Your task to perform on an android device: Search for "dell xps" on amazon.com, select the first entry, add it to the cart, then select checkout. Image 0: 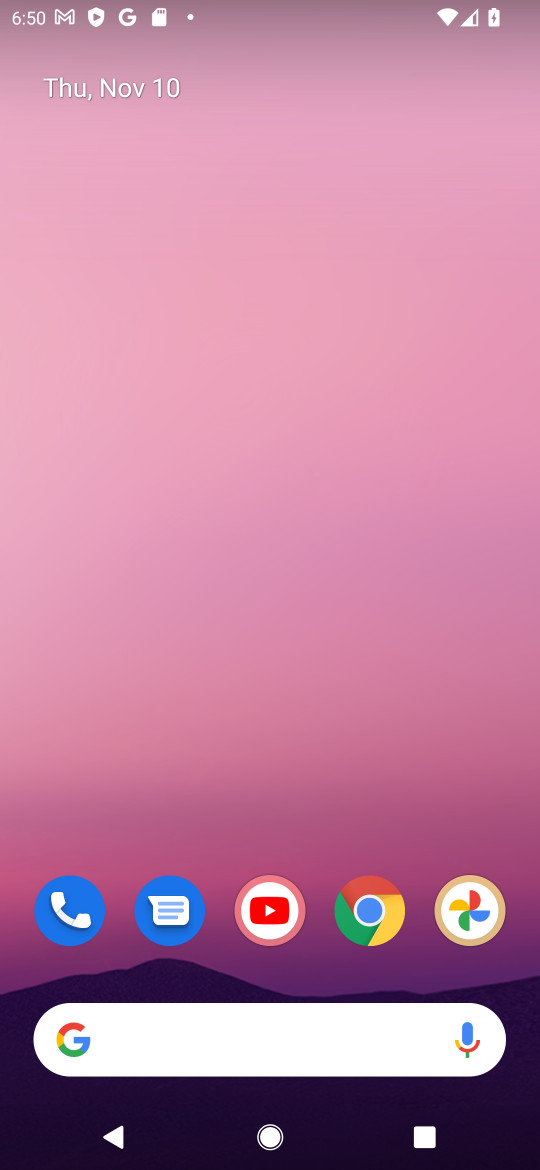
Step 0: click (377, 915)
Your task to perform on an android device: Search for "dell xps" on amazon.com, select the first entry, add it to the cart, then select checkout. Image 1: 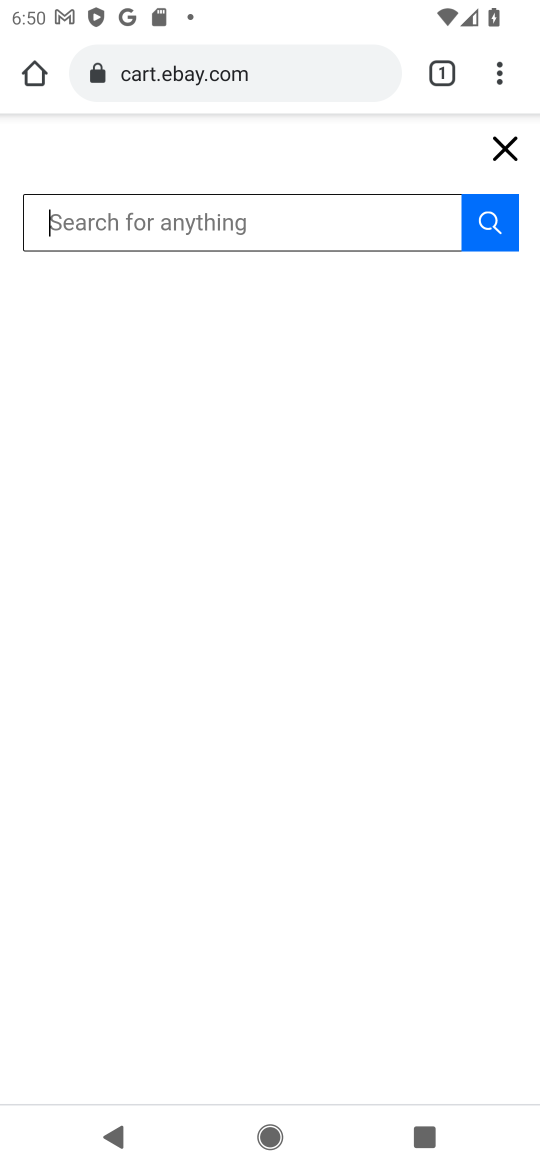
Step 1: click (236, 68)
Your task to perform on an android device: Search for "dell xps" on amazon.com, select the first entry, add it to the cart, then select checkout. Image 2: 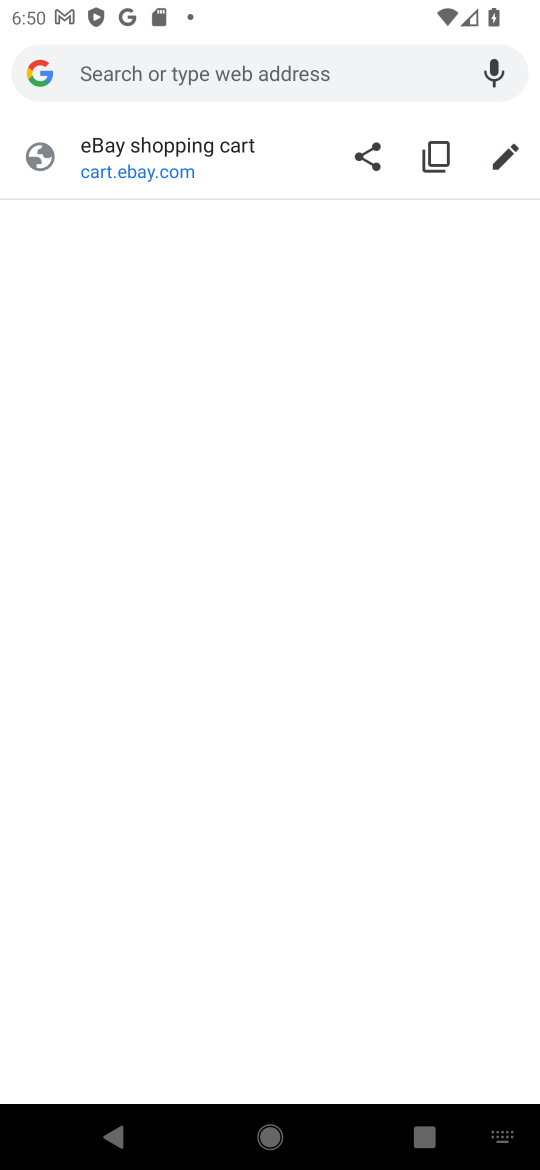
Step 2: type "amazon.com"
Your task to perform on an android device: Search for "dell xps" on amazon.com, select the first entry, add it to the cart, then select checkout. Image 3: 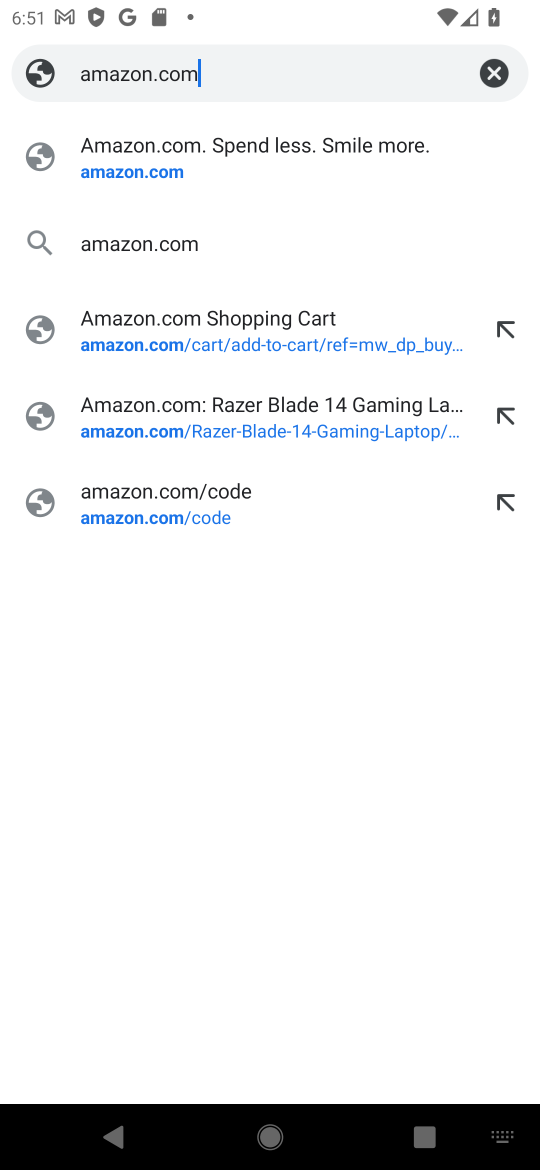
Step 3: click (171, 167)
Your task to perform on an android device: Search for "dell xps" on amazon.com, select the first entry, add it to the cart, then select checkout. Image 4: 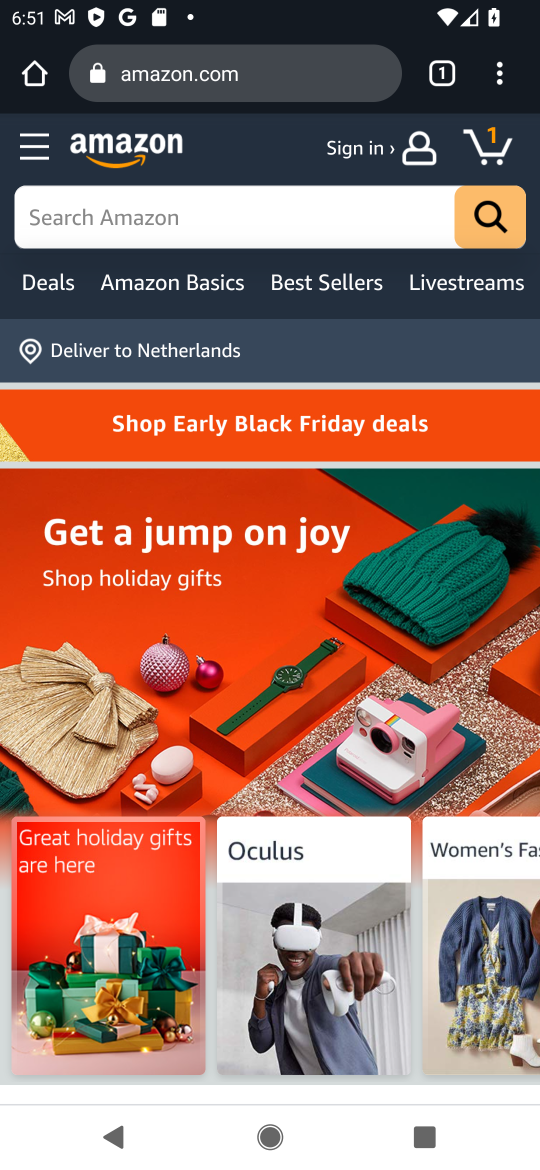
Step 4: click (225, 217)
Your task to perform on an android device: Search for "dell xps" on amazon.com, select the first entry, add it to the cart, then select checkout. Image 5: 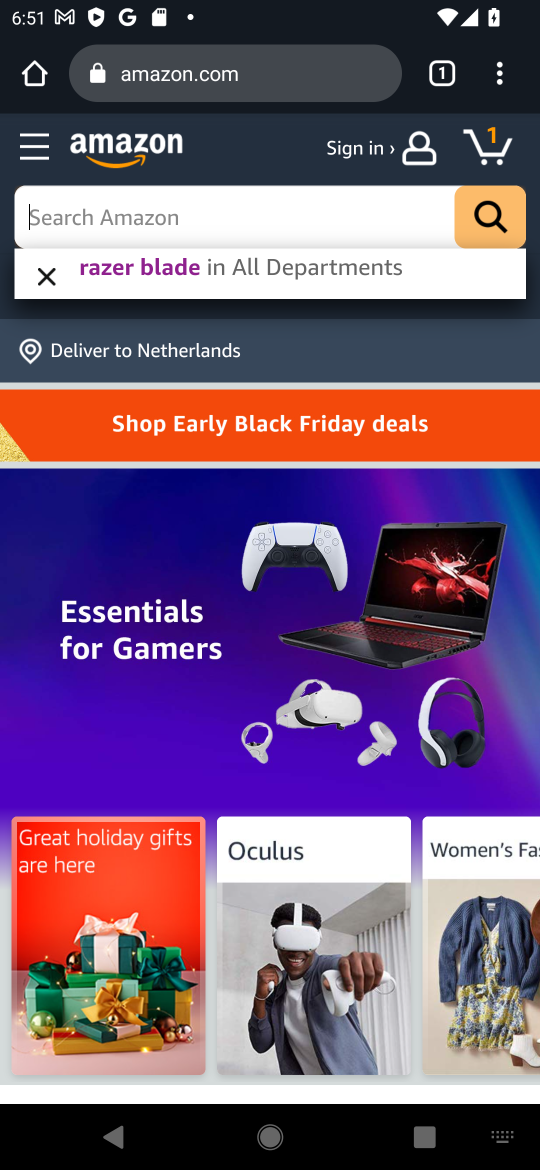
Step 5: type "dell xps"
Your task to perform on an android device: Search for "dell xps" on amazon.com, select the first entry, add it to the cart, then select checkout. Image 6: 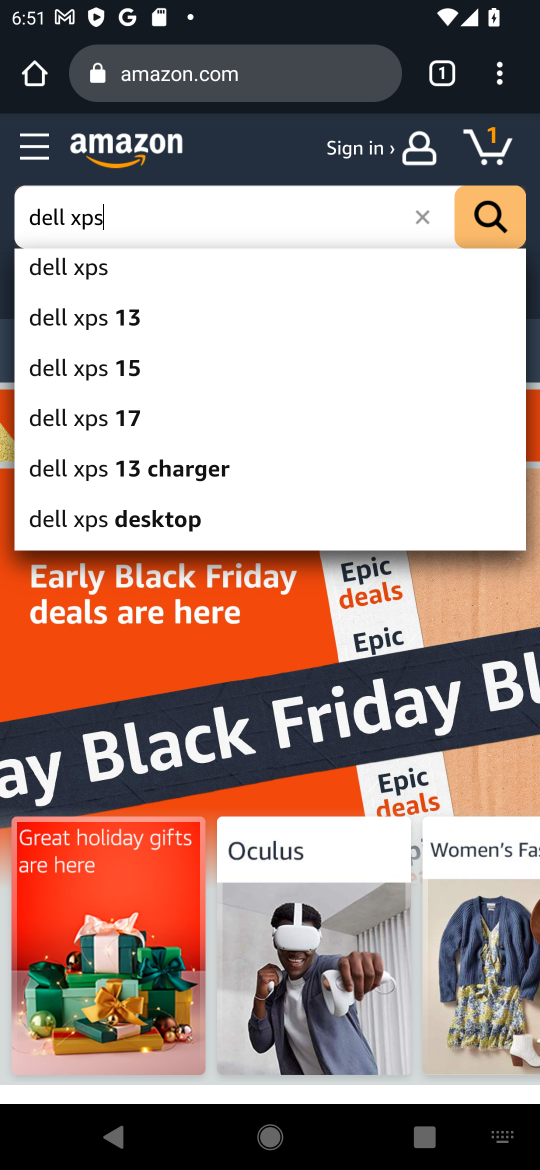
Step 6: click (493, 207)
Your task to perform on an android device: Search for "dell xps" on amazon.com, select the first entry, add it to the cart, then select checkout. Image 7: 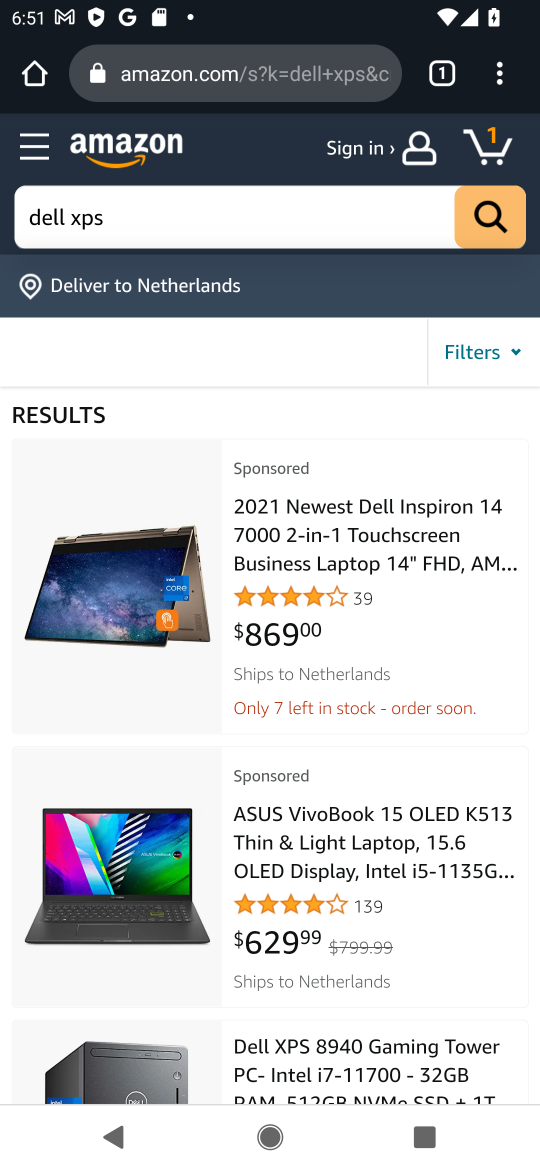
Step 7: click (351, 1044)
Your task to perform on an android device: Search for "dell xps" on amazon.com, select the first entry, add it to the cart, then select checkout. Image 8: 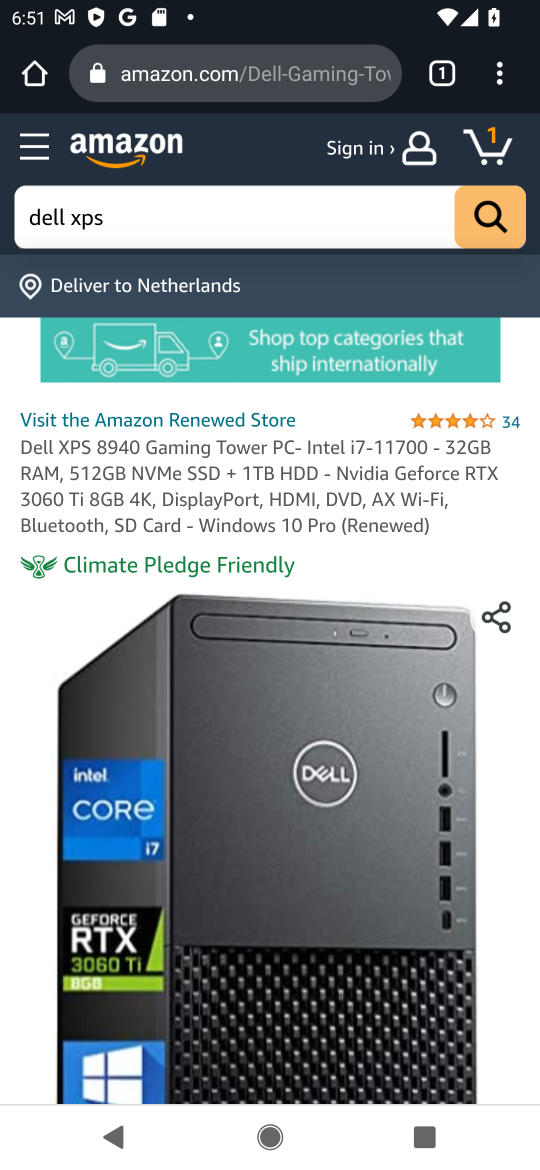
Step 8: drag from (362, 820) to (410, 385)
Your task to perform on an android device: Search for "dell xps" on amazon.com, select the first entry, add it to the cart, then select checkout. Image 9: 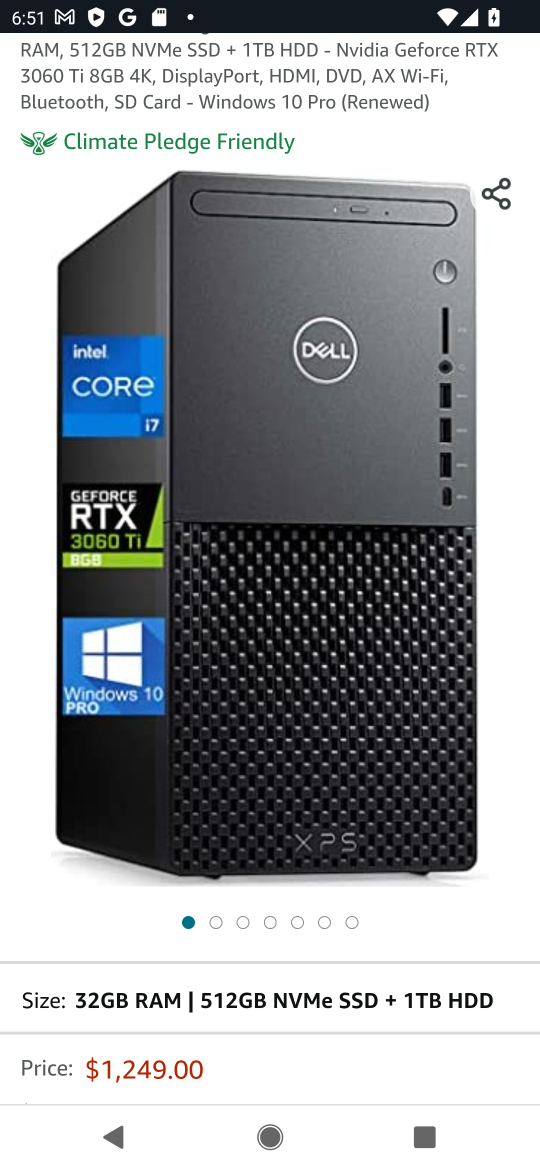
Step 9: drag from (349, 834) to (371, 468)
Your task to perform on an android device: Search for "dell xps" on amazon.com, select the first entry, add it to the cart, then select checkout. Image 10: 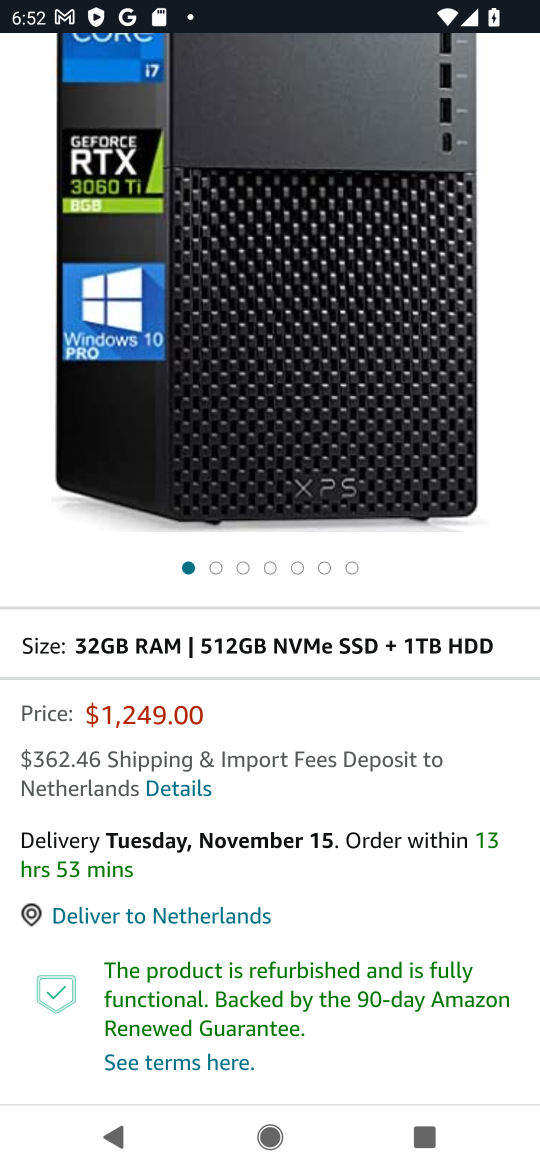
Step 10: drag from (325, 774) to (384, 461)
Your task to perform on an android device: Search for "dell xps" on amazon.com, select the first entry, add it to the cart, then select checkout. Image 11: 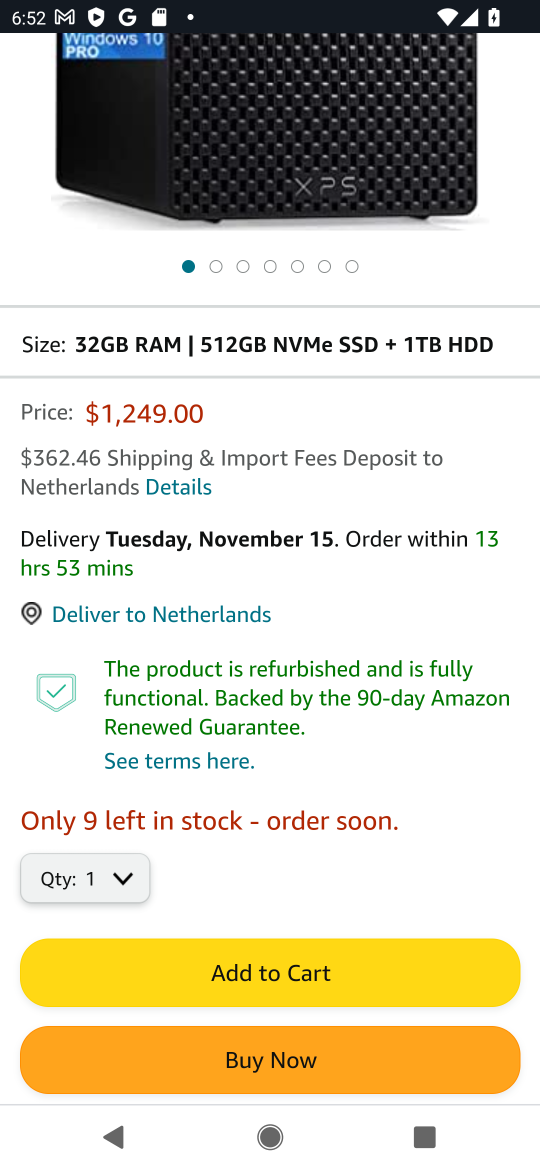
Step 11: click (263, 972)
Your task to perform on an android device: Search for "dell xps" on amazon.com, select the first entry, add it to the cart, then select checkout. Image 12: 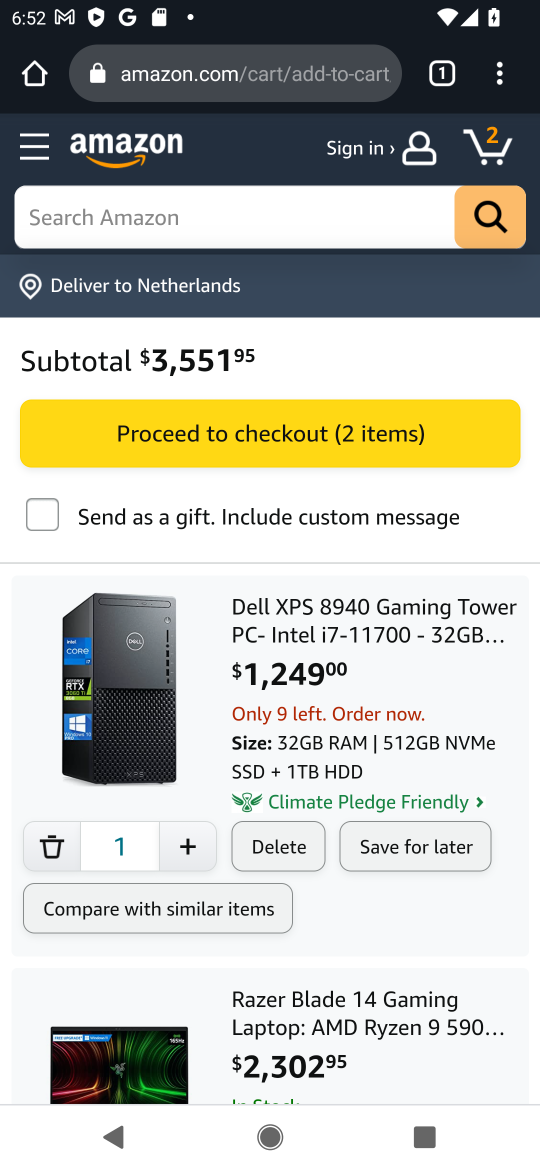
Step 12: click (415, 432)
Your task to perform on an android device: Search for "dell xps" on amazon.com, select the first entry, add it to the cart, then select checkout. Image 13: 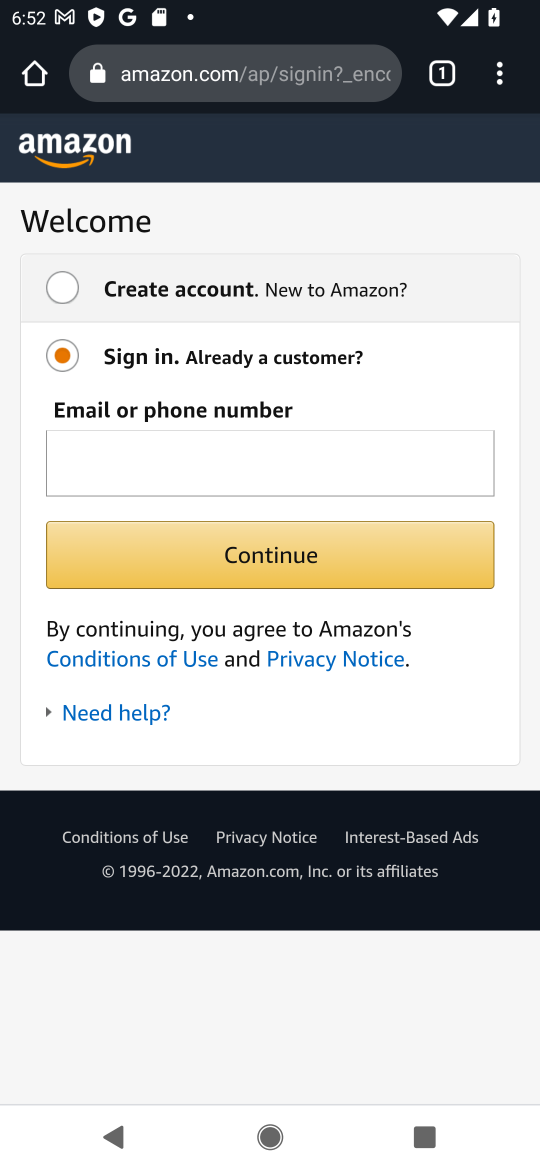
Step 13: task complete